Your task to perform on an android device: set the timer Image 0: 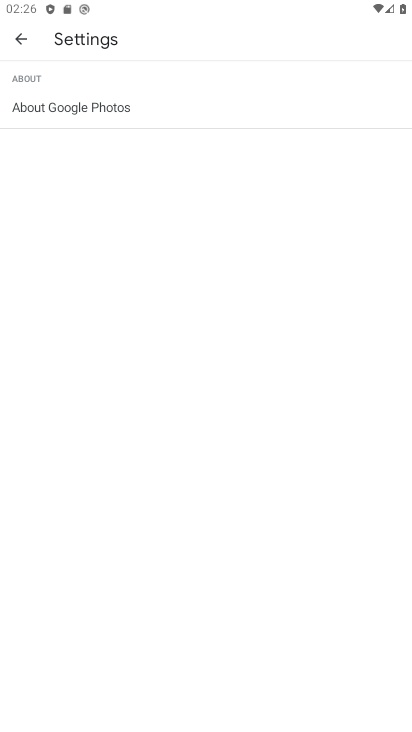
Step 0: click (10, 31)
Your task to perform on an android device: set the timer Image 1: 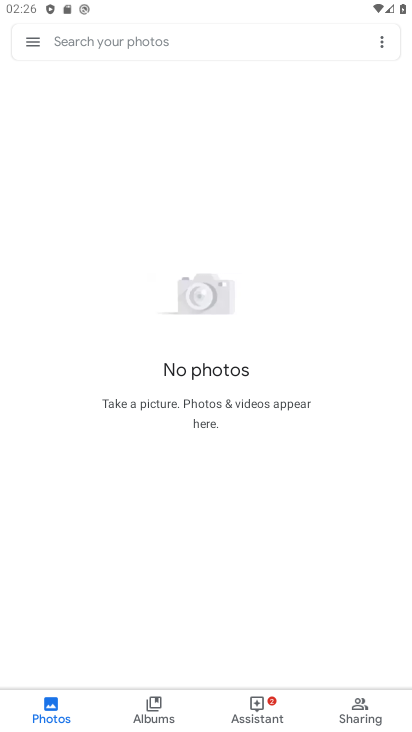
Step 1: press back button
Your task to perform on an android device: set the timer Image 2: 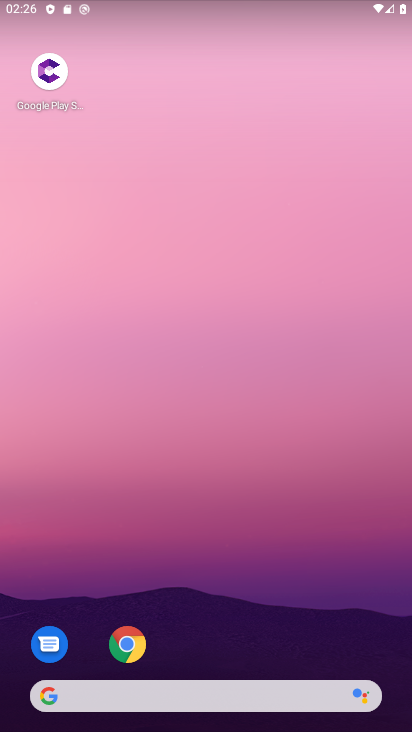
Step 2: drag from (209, 667) to (150, 181)
Your task to perform on an android device: set the timer Image 3: 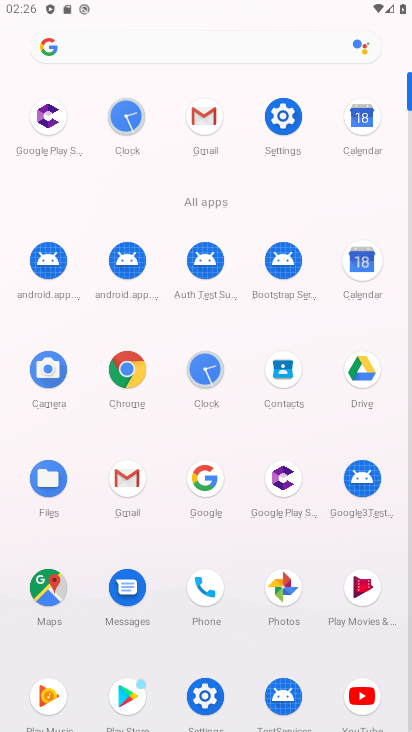
Step 3: click (199, 375)
Your task to perform on an android device: set the timer Image 4: 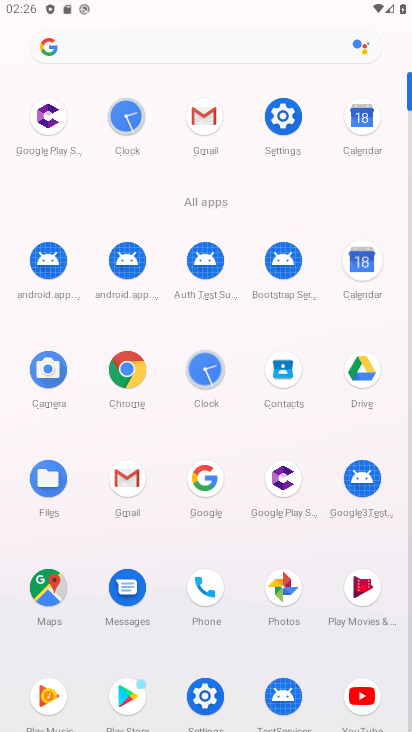
Step 4: click (198, 374)
Your task to perform on an android device: set the timer Image 5: 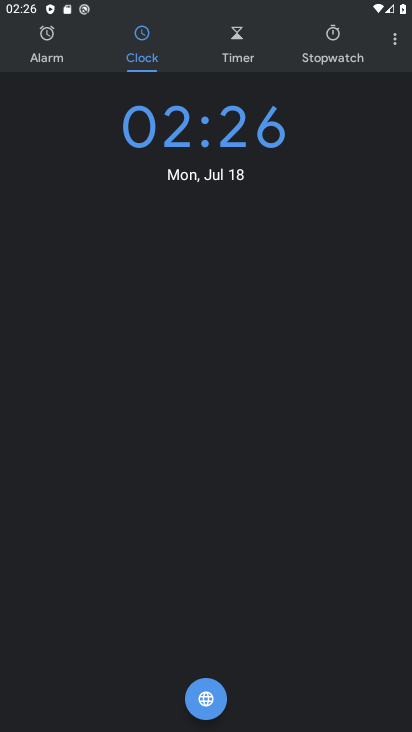
Step 5: click (232, 45)
Your task to perform on an android device: set the timer Image 6: 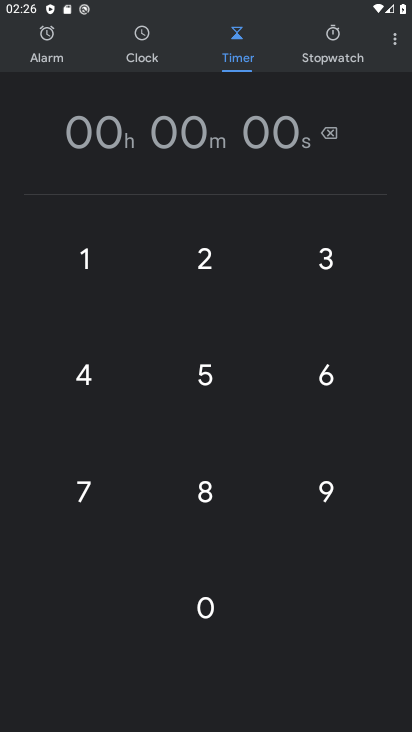
Step 6: click (210, 491)
Your task to perform on an android device: set the timer Image 7: 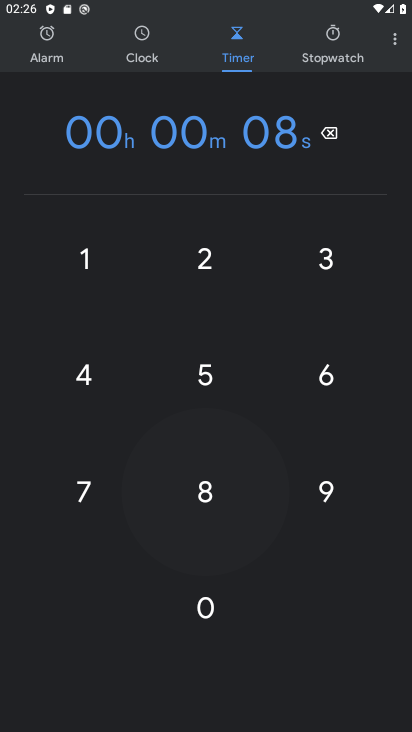
Step 7: click (211, 488)
Your task to perform on an android device: set the timer Image 8: 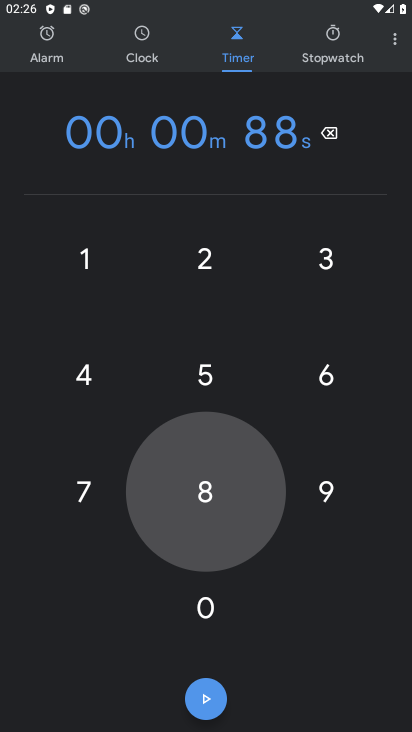
Step 8: click (211, 488)
Your task to perform on an android device: set the timer Image 9: 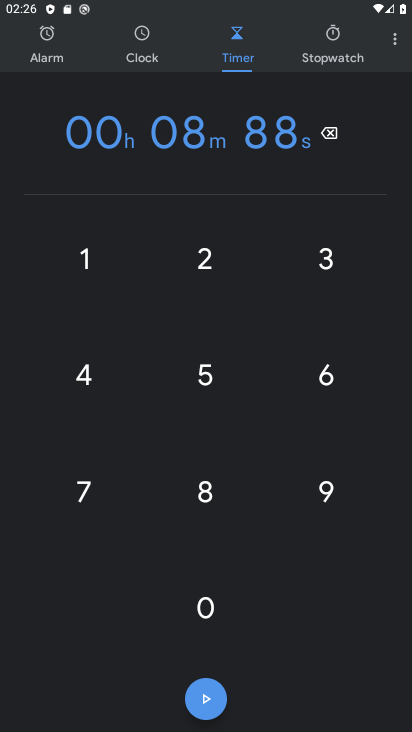
Step 9: click (197, 694)
Your task to perform on an android device: set the timer Image 10: 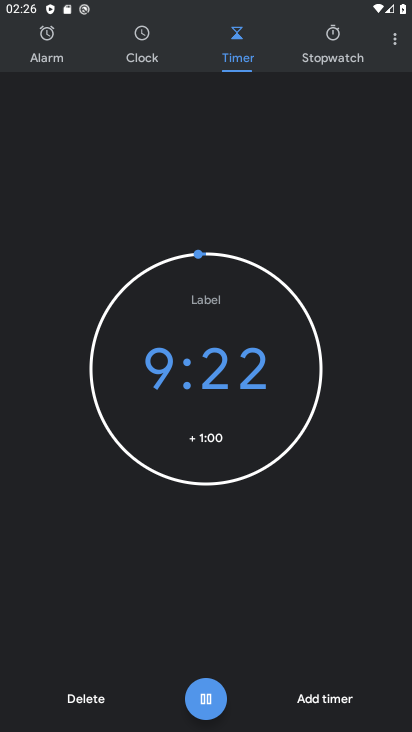
Step 10: click (203, 694)
Your task to perform on an android device: set the timer Image 11: 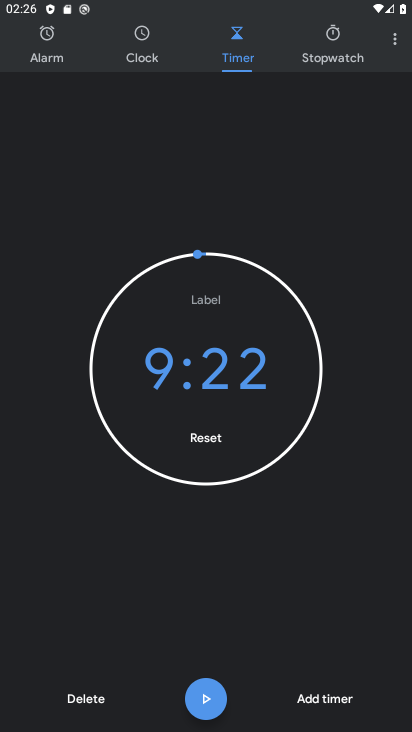
Step 11: click (203, 695)
Your task to perform on an android device: set the timer Image 12: 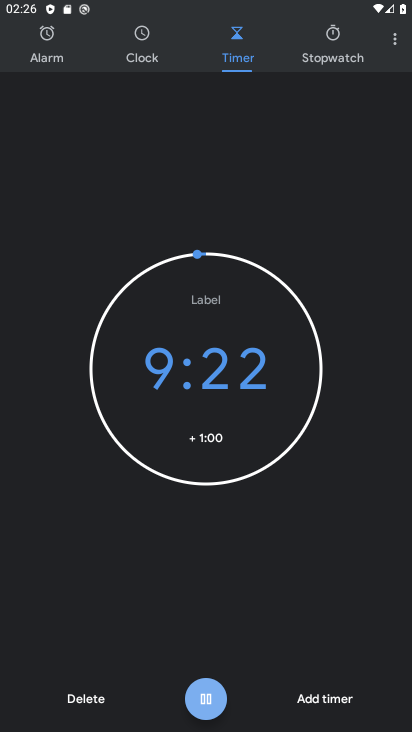
Step 12: click (201, 697)
Your task to perform on an android device: set the timer Image 13: 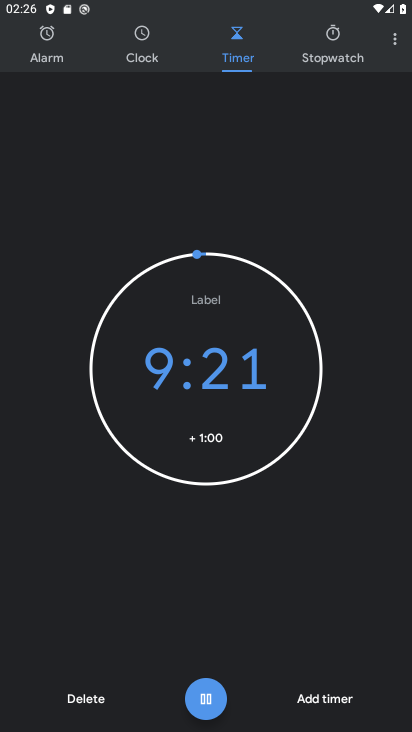
Step 13: click (201, 697)
Your task to perform on an android device: set the timer Image 14: 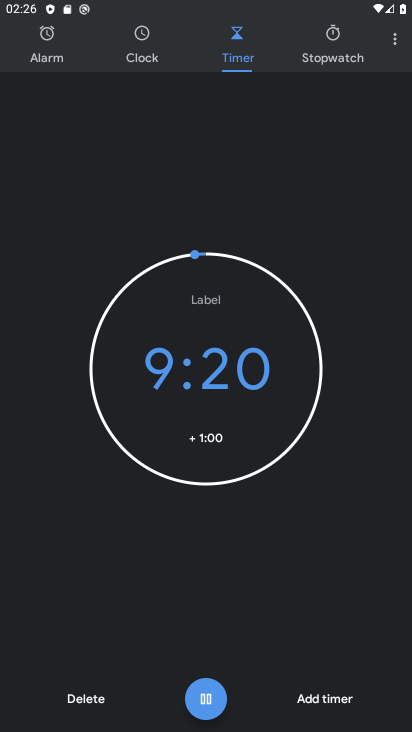
Step 14: click (205, 692)
Your task to perform on an android device: set the timer Image 15: 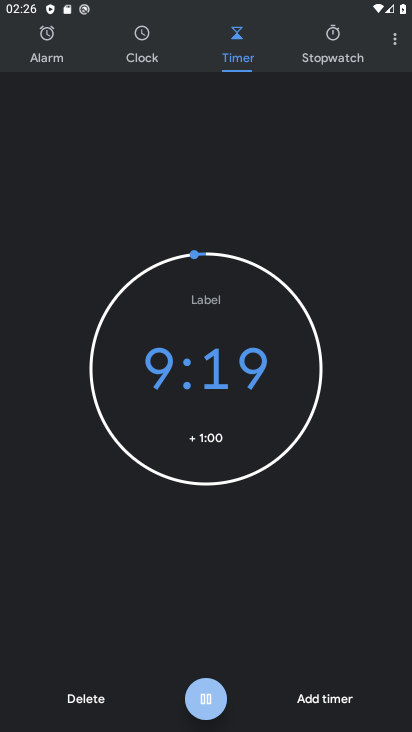
Step 15: click (205, 692)
Your task to perform on an android device: set the timer Image 16: 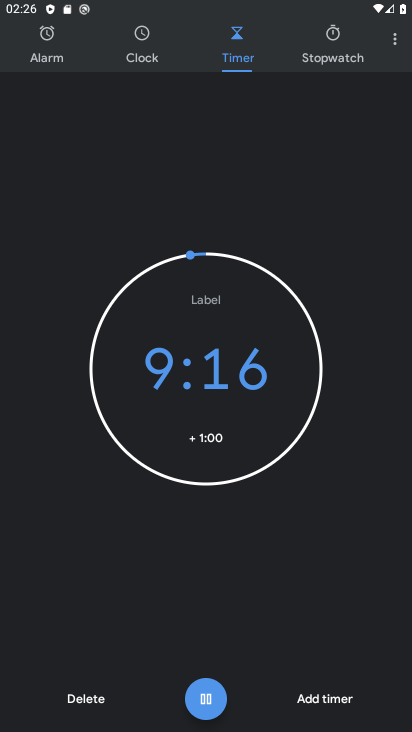
Step 16: click (205, 699)
Your task to perform on an android device: set the timer Image 17: 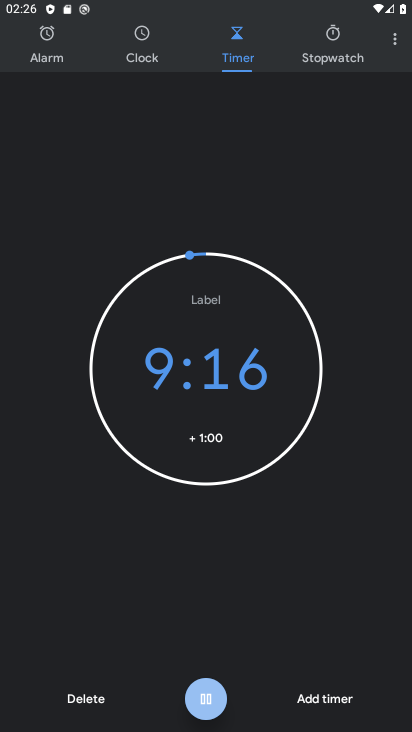
Step 17: click (206, 699)
Your task to perform on an android device: set the timer Image 18: 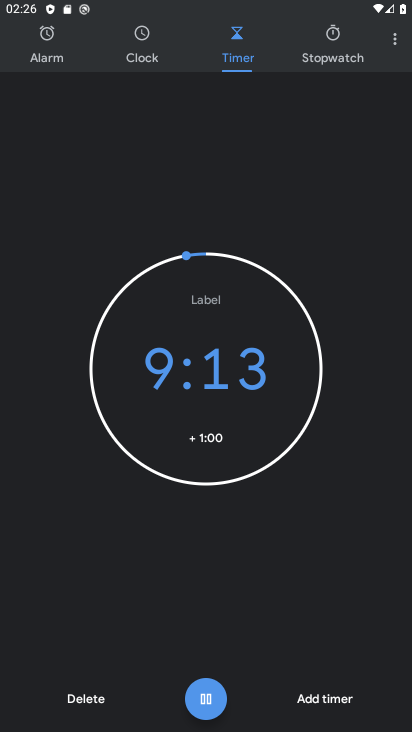
Step 18: click (205, 699)
Your task to perform on an android device: set the timer Image 19: 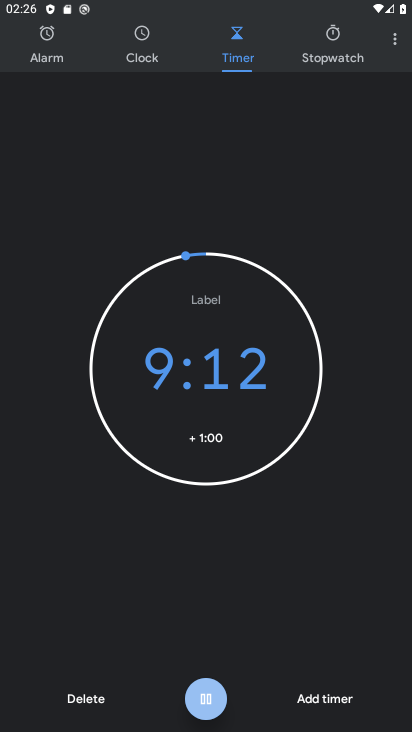
Step 19: click (206, 699)
Your task to perform on an android device: set the timer Image 20: 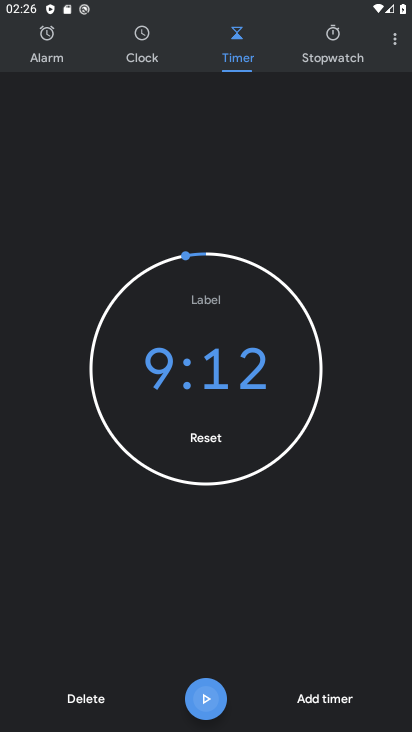
Step 20: click (207, 697)
Your task to perform on an android device: set the timer Image 21: 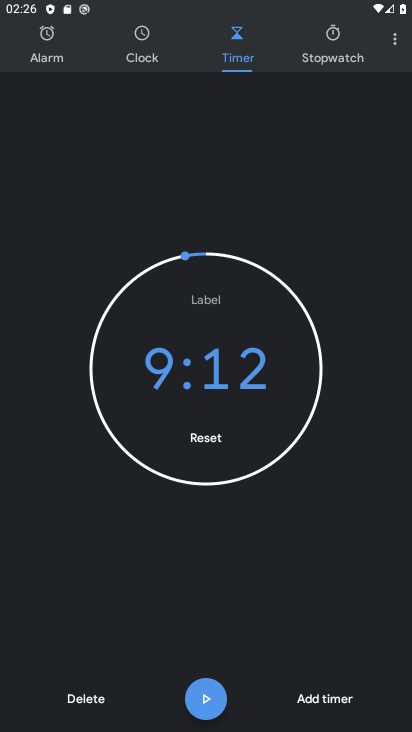
Step 21: task complete